Your task to perform on an android device: toggle sleep mode Image 0: 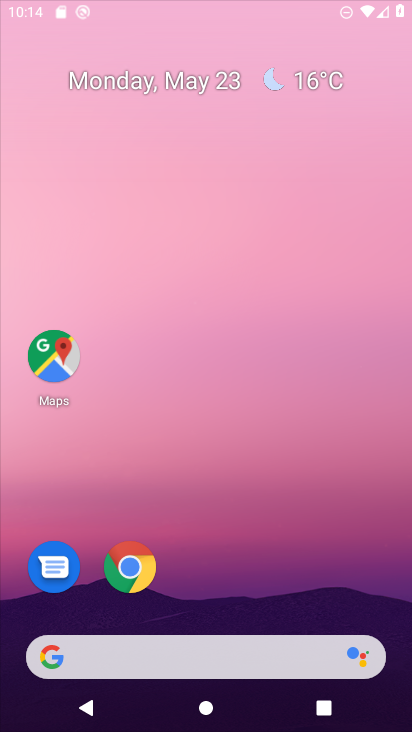
Step 0: click (282, 75)
Your task to perform on an android device: toggle sleep mode Image 1: 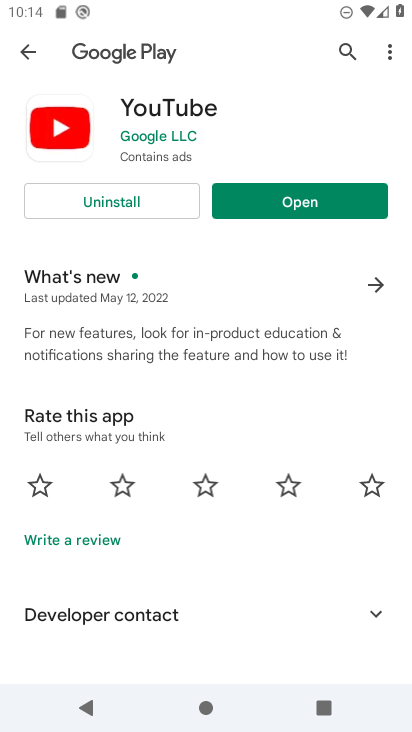
Step 1: drag from (203, 626) to (229, 6)
Your task to perform on an android device: toggle sleep mode Image 2: 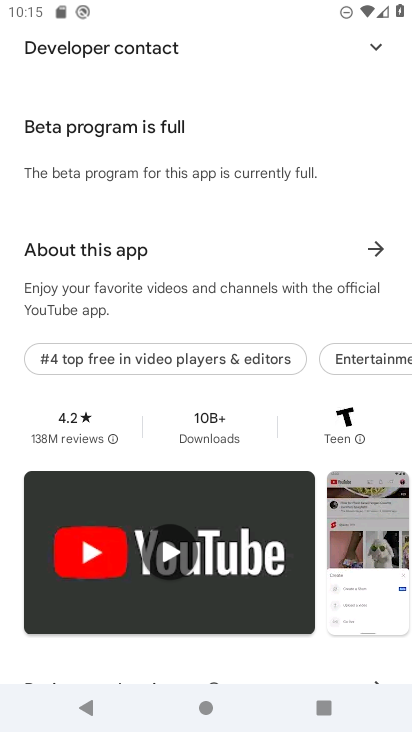
Step 2: drag from (206, 642) to (290, 202)
Your task to perform on an android device: toggle sleep mode Image 3: 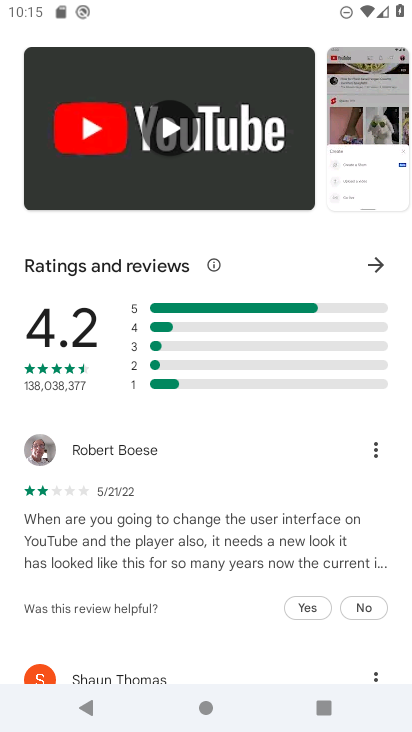
Step 3: drag from (285, 139) to (283, 634)
Your task to perform on an android device: toggle sleep mode Image 4: 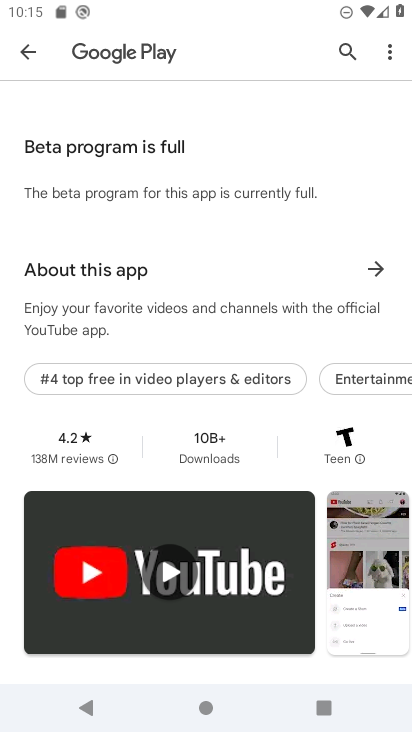
Step 4: press home button
Your task to perform on an android device: toggle sleep mode Image 5: 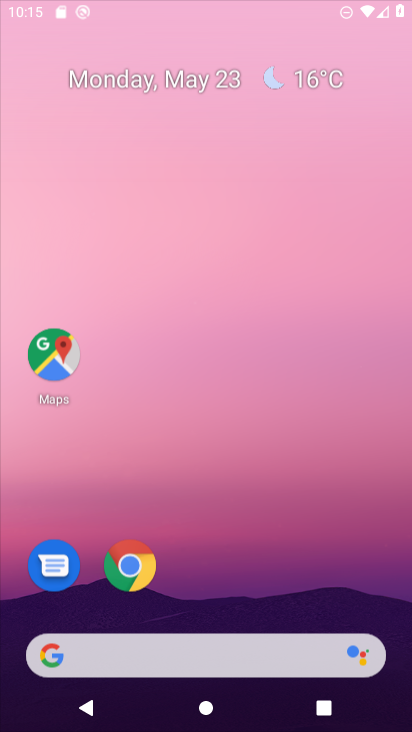
Step 5: drag from (154, 619) to (239, 101)
Your task to perform on an android device: toggle sleep mode Image 6: 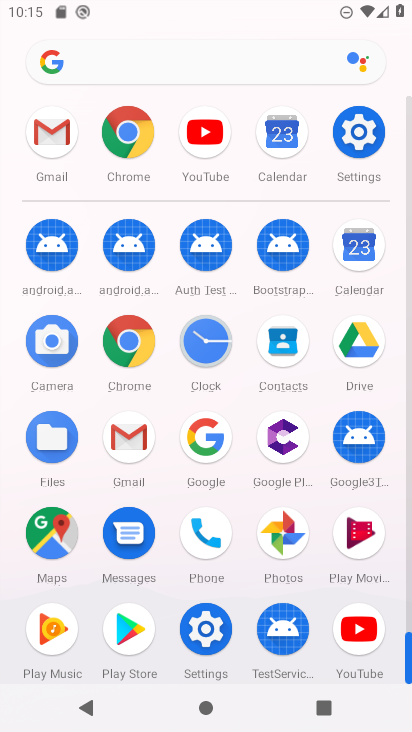
Step 6: click (354, 129)
Your task to perform on an android device: toggle sleep mode Image 7: 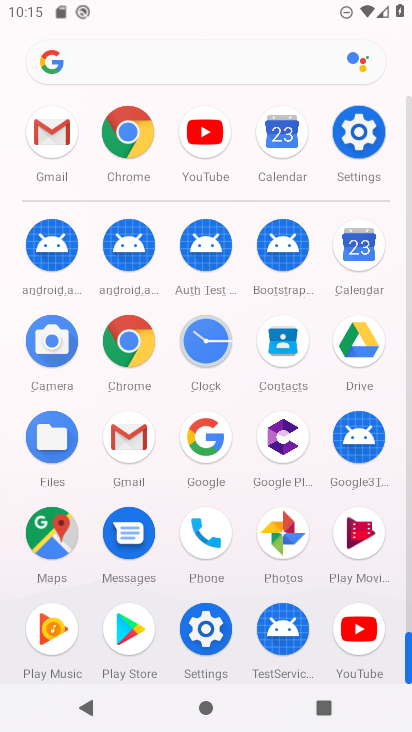
Step 7: click (354, 129)
Your task to perform on an android device: toggle sleep mode Image 8: 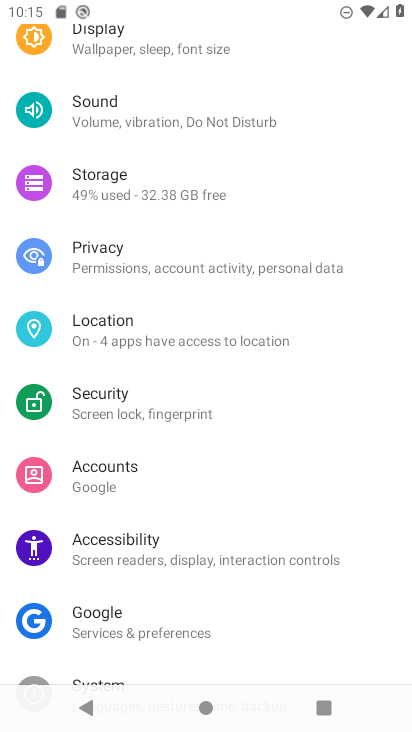
Step 8: drag from (183, 622) to (278, 184)
Your task to perform on an android device: toggle sleep mode Image 9: 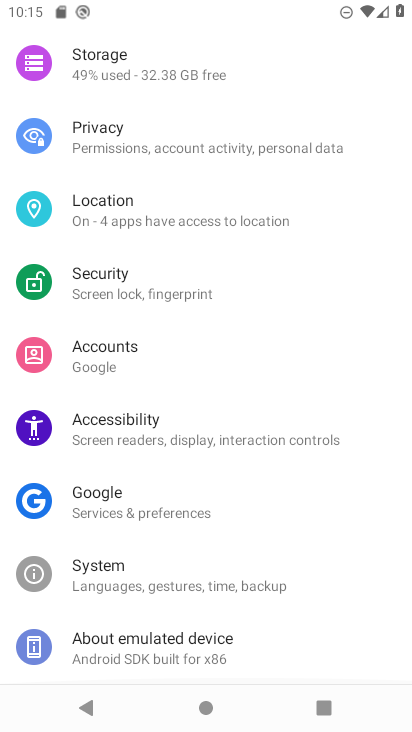
Step 9: drag from (254, 160) to (232, 683)
Your task to perform on an android device: toggle sleep mode Image 10: 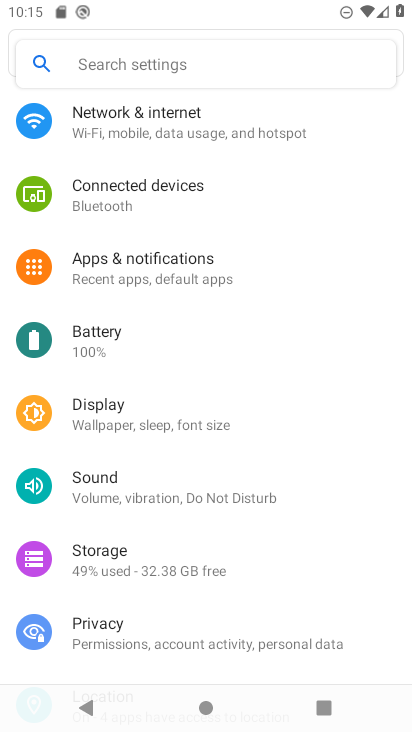
Step 10: click (151, 427)
Your task to perform on an android device: toggle sleep mode Image 11: 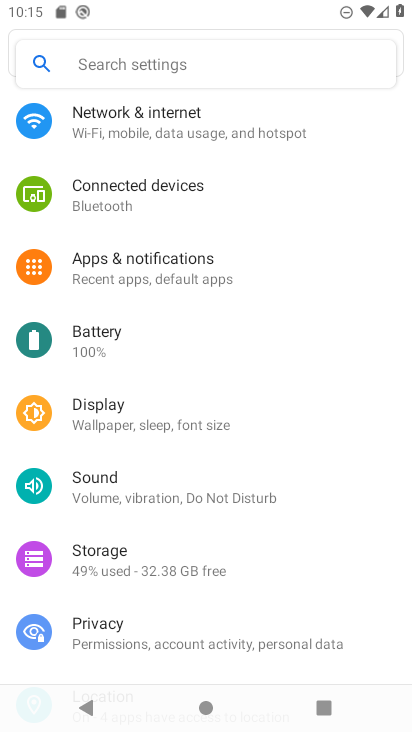
Step 11: click (151, 427)
Your task to perform on an android device: toggle sleep mode Image 12: 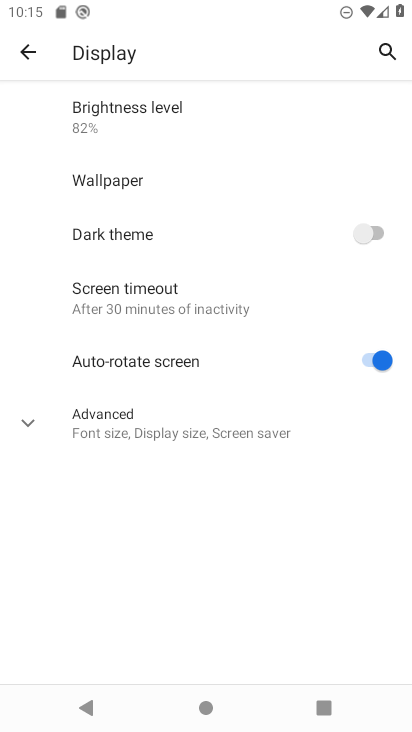
Step 12: click (157, 293)
Your task to perform on an android device: toggle sleep mode Image 13: 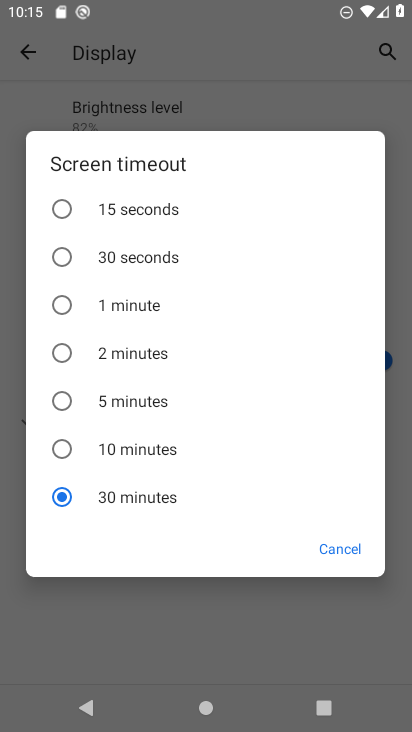
Step 13: task complete